Your task to perform on an android device: Search for sushi restaurants on Maps Image 0: 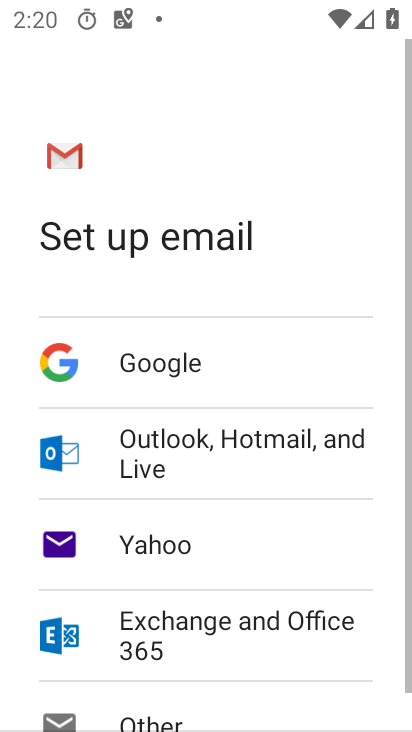
Step 0: press home button
Your task to perform on an android device: Search for sushi restaurants on Maps Image 1: 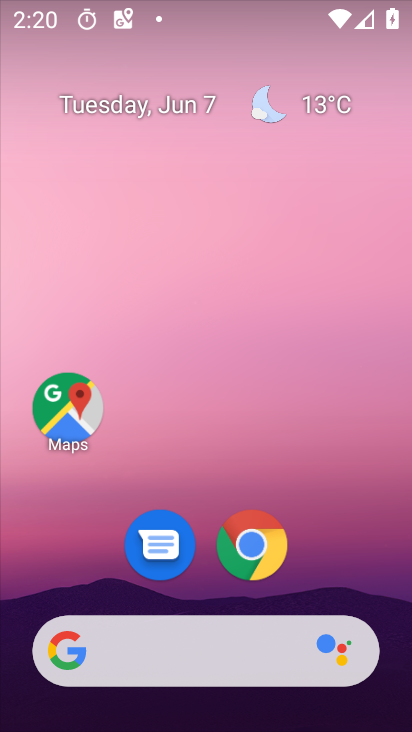
Step 1: click (82, 400)
Your task to perform on an android device: Search for sushi restaurants on Maps Image 2: 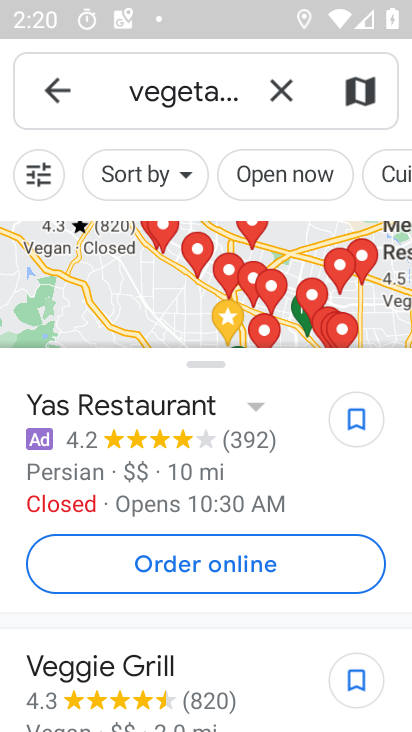
Step 2: click (272, 96)
Your task to perform on an android device: Search for sushi restaurants on Maps Image 3: 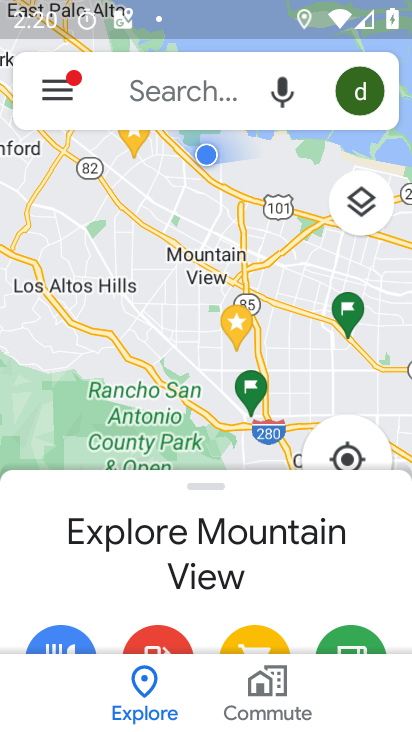
Step 3: click (203, 88)
Your task to perform on an android device: Search for sushi restaurants on Maps Image 4: 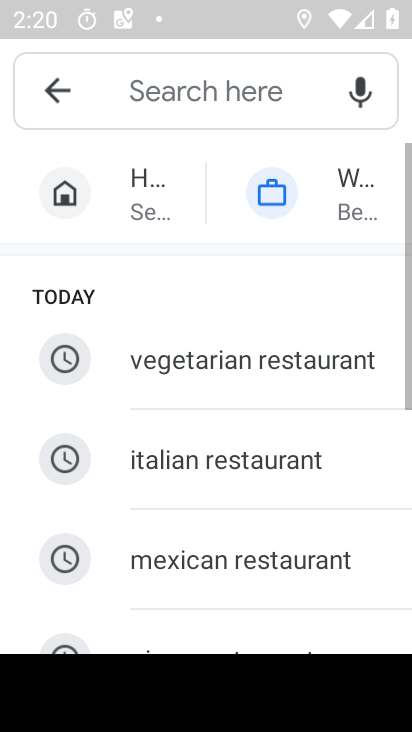
Step 4: drag from (236, 426) to (231, 133)
Your task to perform on an android device: Search for sushi restaurants on Maps Image 5: 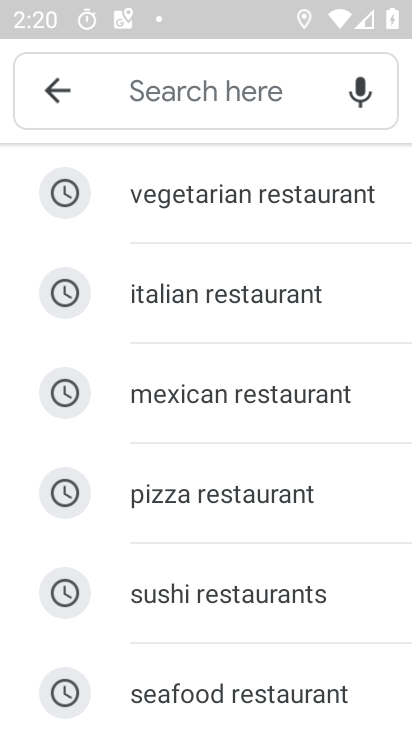
Step 5: click (174, 603)
Your task to perform on an android device: Search for sushi restaurants on Maps Image 6: 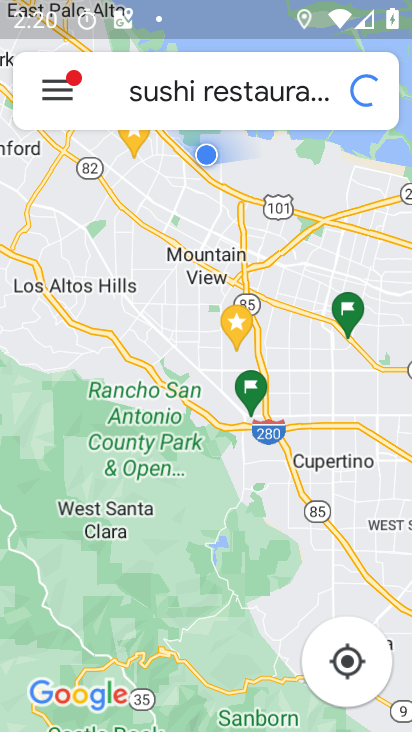
Step 6: task complete